Your task to perform on an android device: turn on translation in the chrome app Image 0: 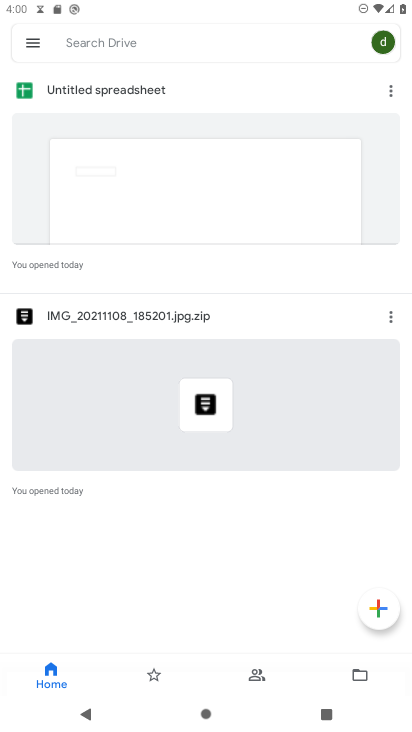
Step 0: press home button
Your task to perform on an android device: turn on translation in the chrome app Image 1: 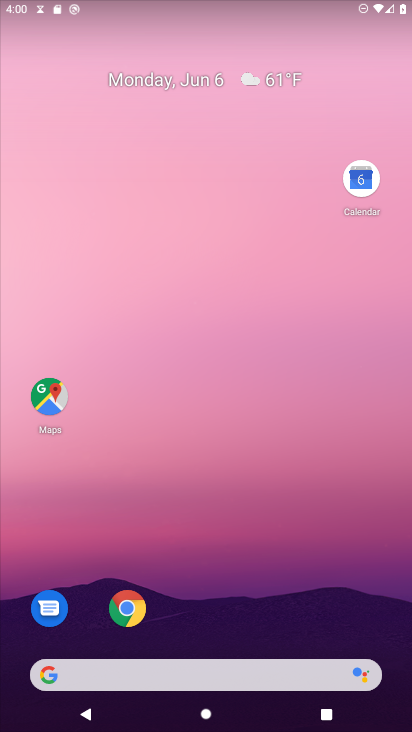
Step 1: click (126, 612)
Your task to perform on an android device: turn on translation in the chrome app Image 2: 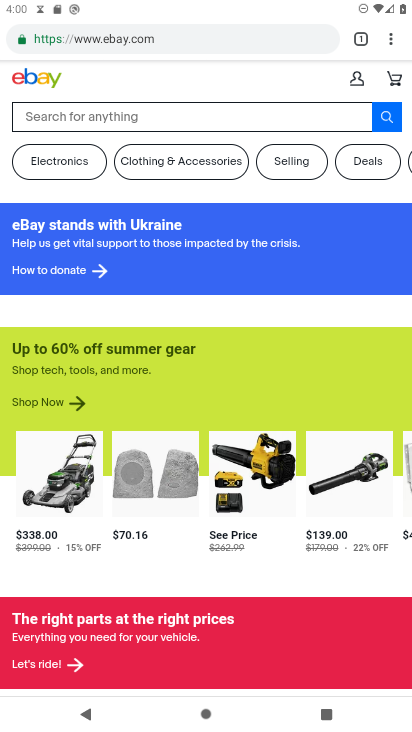
Step 2: click (393, 44)
Your task to perform on an android device: turn on translation in the chrome app Image 3: 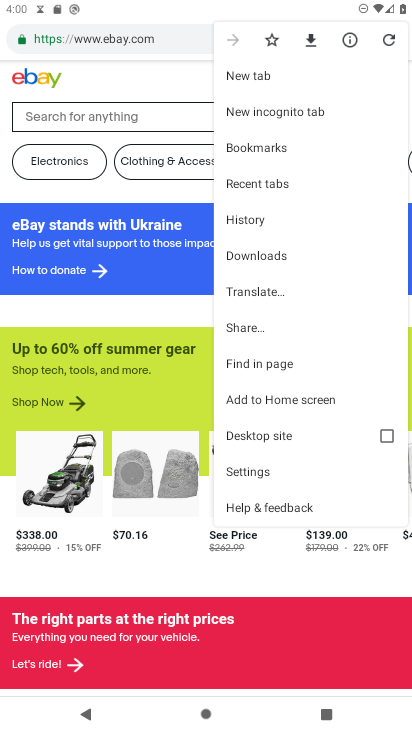
Step 3: click (263, 470)
Your task to perform on an android device: turn on translation in the chrome app Image 4: 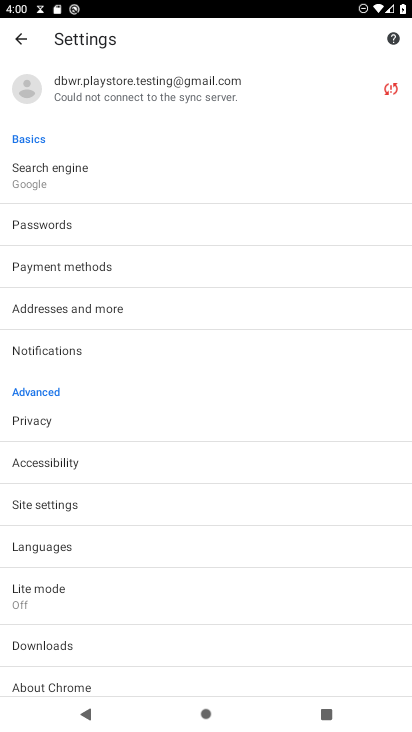
Step 4: click (80, 552)
Your task to perform on an android device: turn on translation in the chrome app Image 5: 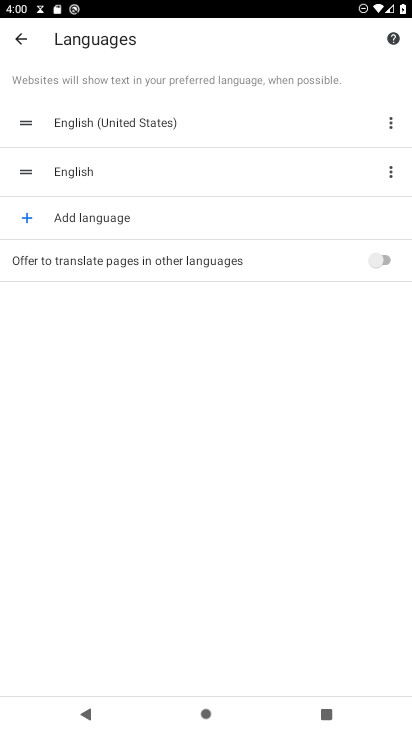
Step 5: click (383, 251)
Your task to perform on an android device: turn on translation in the chrome app Image 6: 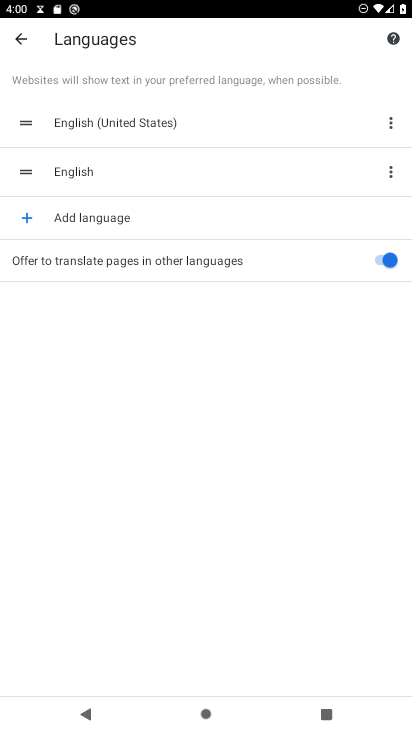
Step 6: task complete